Your task to perform on an android device: Open Android settings Image 0: 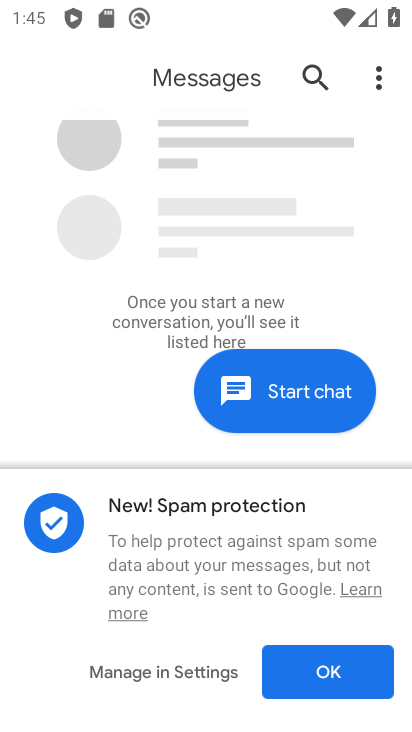
Step 0: press home button
Your task to perform on an android device: Open Android settings Image 1: 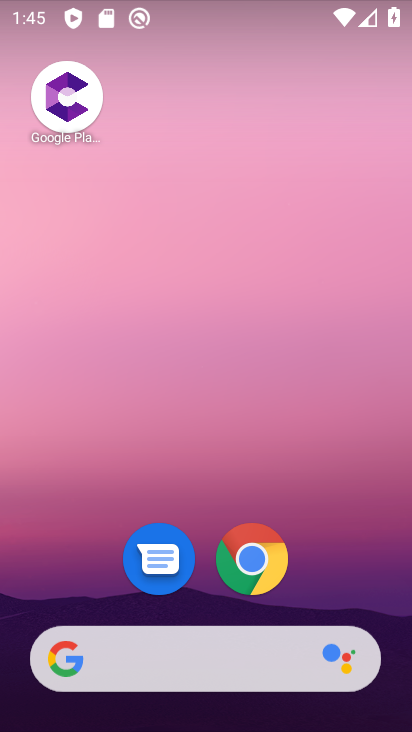
Step 1: drag from (103, 632) to (202, 148)
Your task to perform on an android device: Open Android settings Image 2: 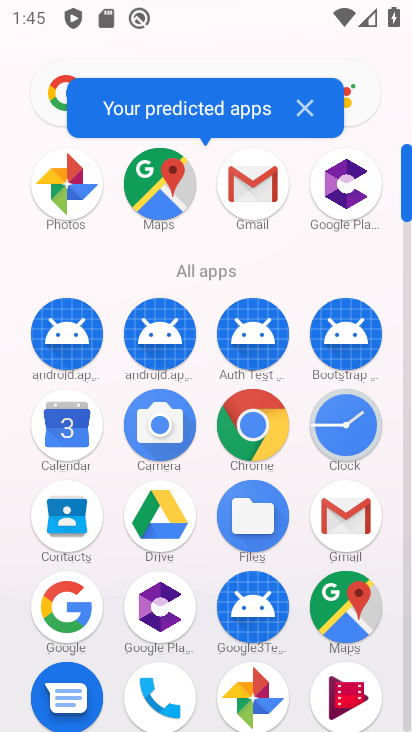
Step 2: drag from (157, 666) to (208, 455)
Your task to perform on an android device: Open Android settings Image 3: 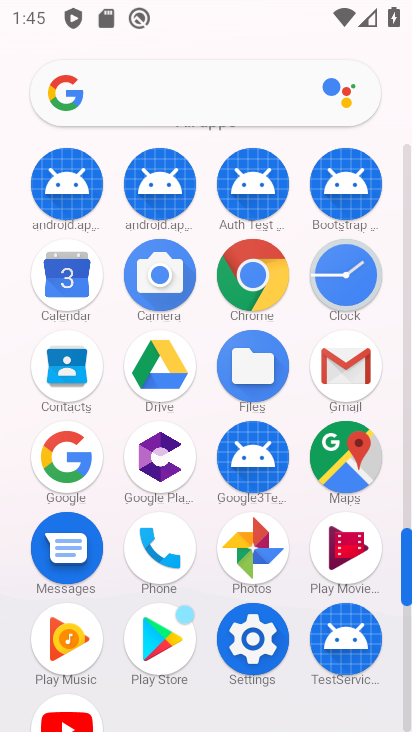
Step 3: click (254, 641)
Your task to perform on an android device: Open Android settings Image 4: 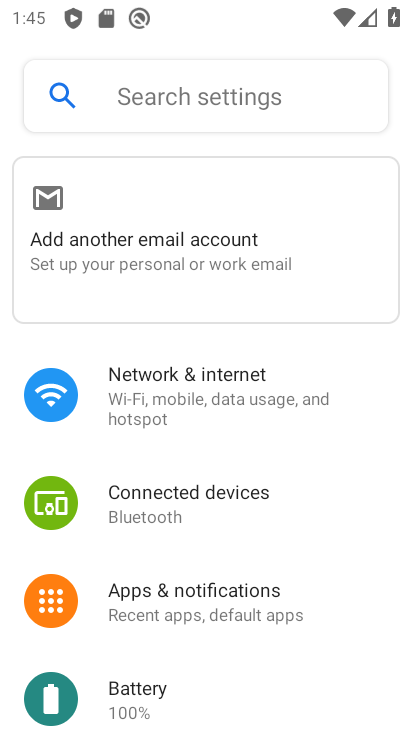
Step 4: task complete